Your task to perform on an android device: What's on my calendar tomorrow? Image 0: 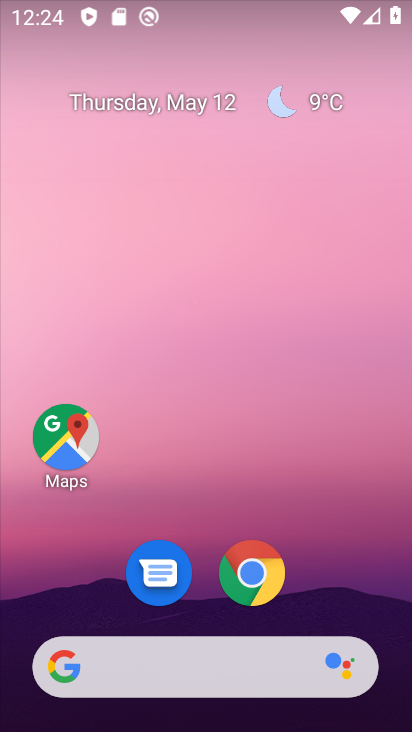
Step 0: drag from (207, 585) to (199, 13)
Your task to perform on an android device: What's on my calendar tomorrow? Image 1: 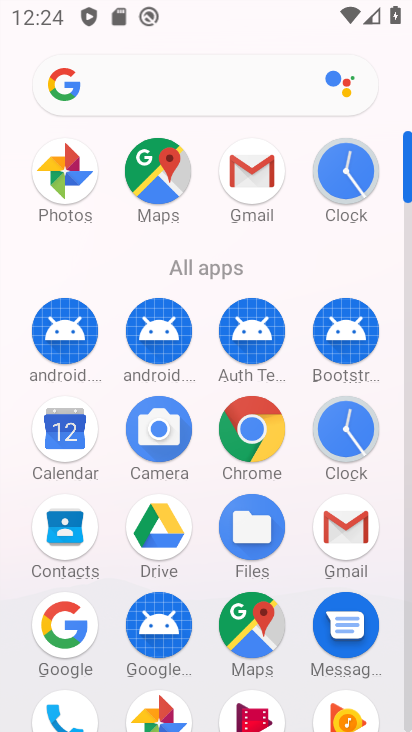
Step 1: click (71, 432)
Your task to perform on an android device: What's on my calendar tomorrow? Image 2: 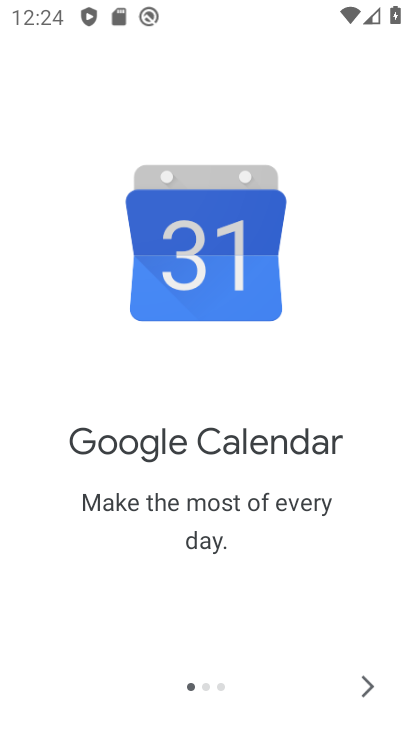
Step 2: click (363, 685)
Your task to perform on an android device: What's on my calendar tomorrow? Image 3: 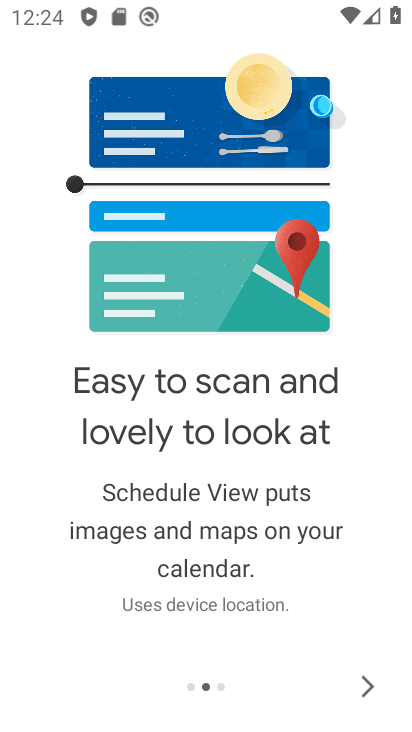
Step 3: click (363, 685)
Your task to perform on an android device: What's on my calendar tomorrow? Image 4: 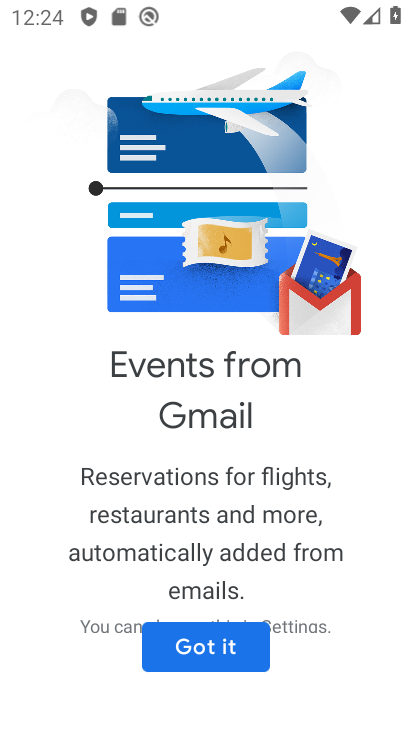
Step 4: click (189, 644)
Your task to perform on an android device: What's on my calendar tomorrow? Image 5: 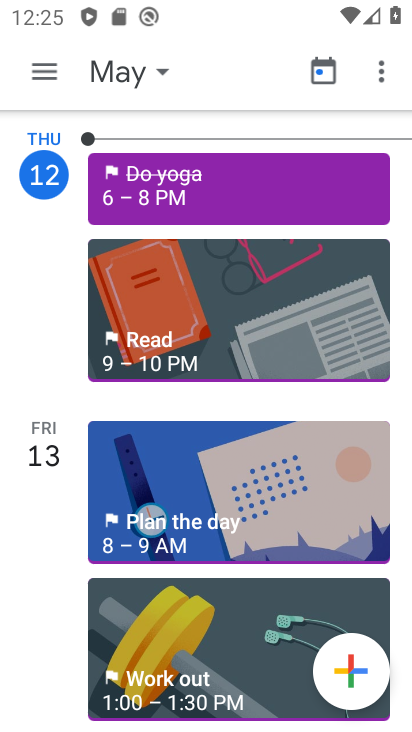
Step 5: click (39, 76)
Your task to perform on an android device: What's on my calendar tomorrow? Image 6: 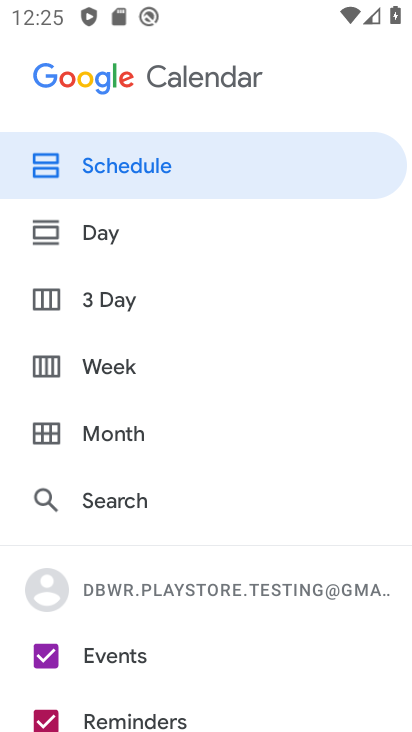
Step 6: click (134, 309)
Your task to perform on an android device: What's on my calendar tomorrow? Image 7: 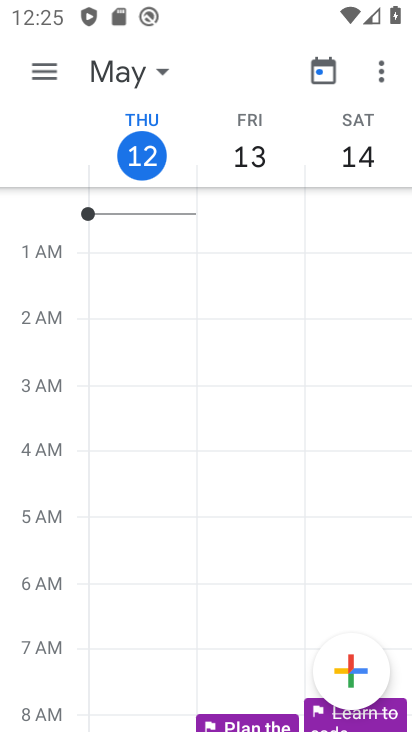
Step 7: task complete